Your task to perform on an android device: turn on notifications settings in the gmail app Image 0: 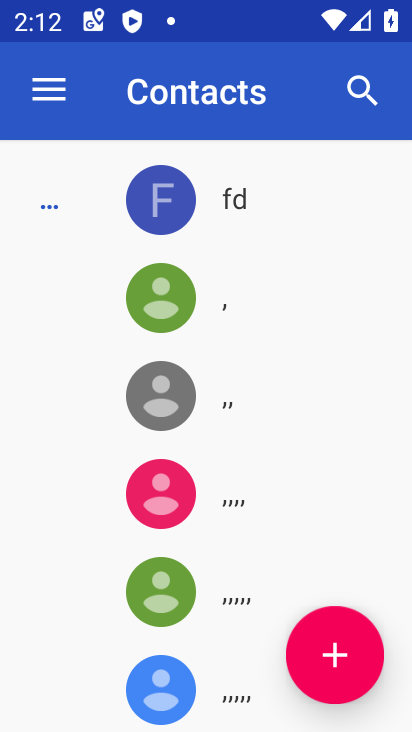
Step 0: press home button
Your task to perform on an android device: turn on notifications settings in the gmail app Image 1: 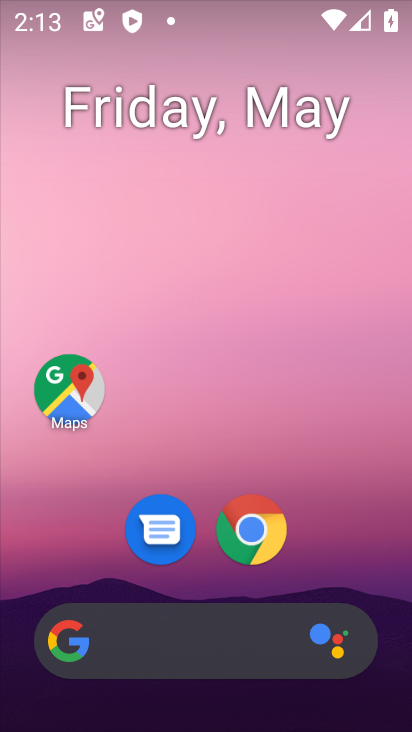
Step 1: drag from (365, 535) to (232, 21)
Your task to perform on an android device: turn on notifications settings in the gmail app Image 2: 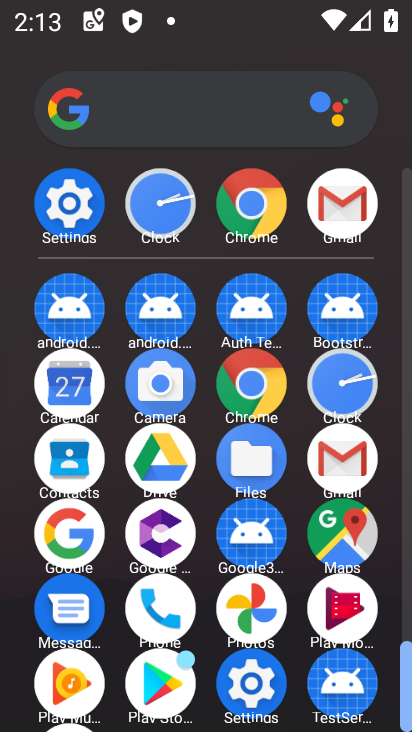
Step 2: click (341, 470)
Your task to perform on an android device: turn on notifications settings in the gmail app Image 3: 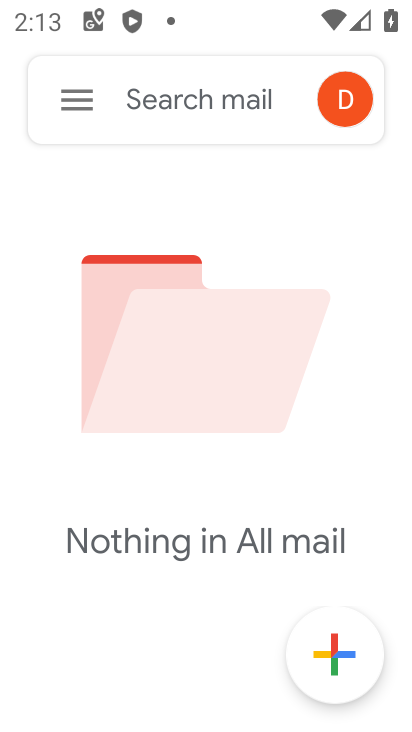
Step 3: click (64, 123)
Your task to perform on an android device: turn on notifications settings in the gmail app Image 4: 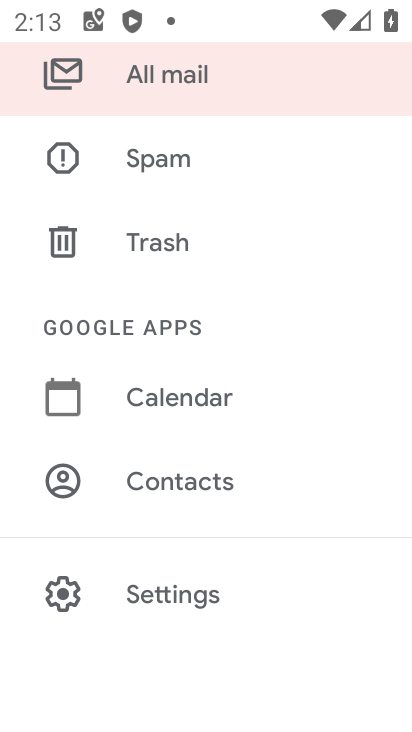
Step 4: click (242, 601)
Your task to perform on an android device: turn on notifications settings in the gmail app Image 5: 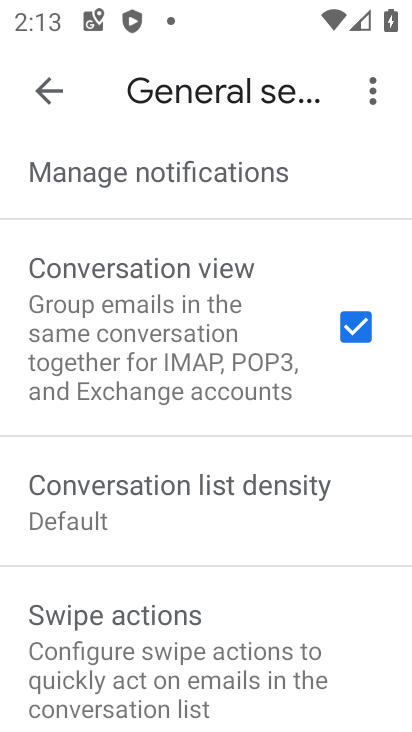
Step 5: click (80, 165)
Your task to perform on an android device: turn on notifications settings in the gmail app Image 6: 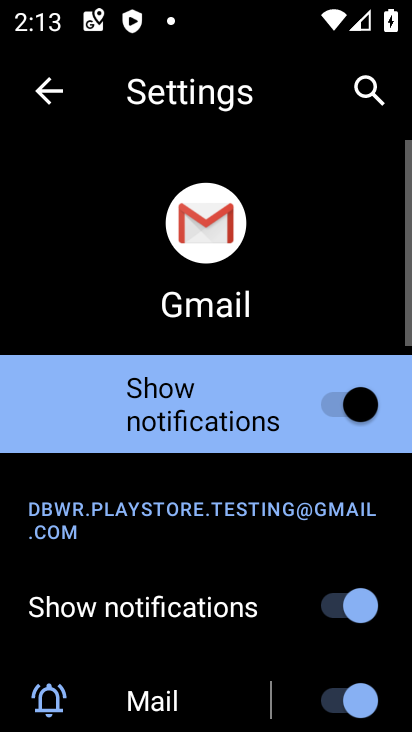
Step 6: click (373, 396)
Your task to perform on an android device: turn on notifications settings in the gmail app Image 7: 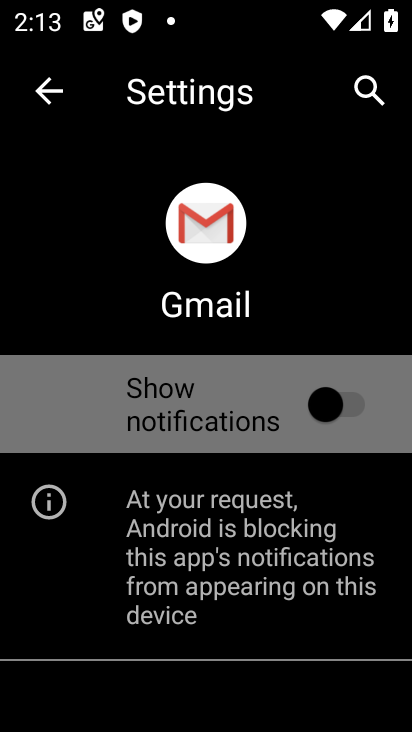
Step 7: task complete